Your task to perform on an android device: Toggle the flashlight Image 0: 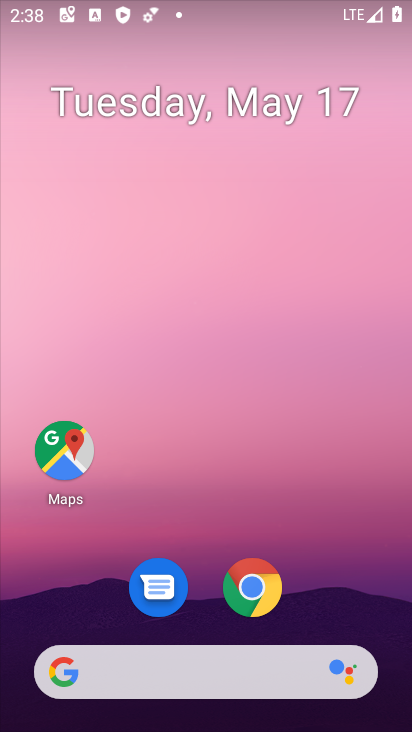
Step 0: click (407, 458)
Your task to perform on an android device: Toggle the flashlight Image 1: 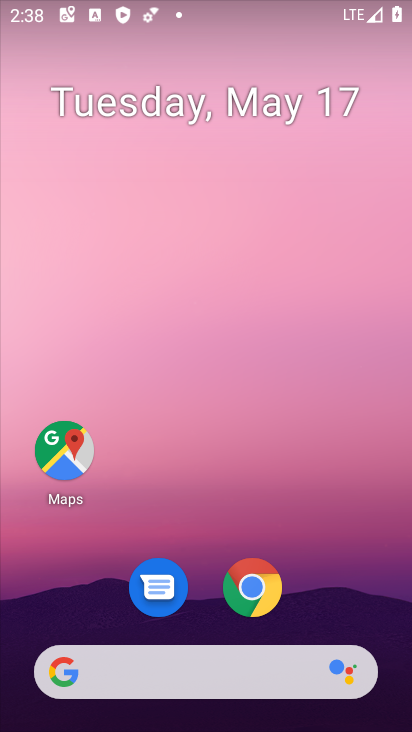
Step 1: drag from (192, 617) to (215, 120)
Your task to perform on an android device: Toggle the flashlight Image 2: 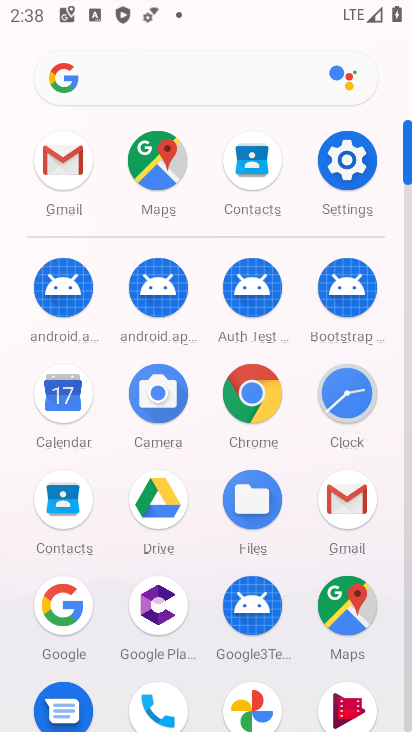
Step 2: click (341, 150)
Your task to perform on an android device: Toggle the flashlight Image 3: 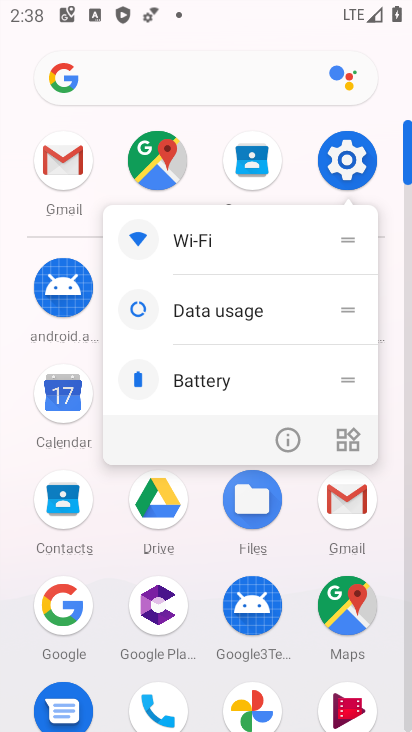
Step 3: click (284, 437)
Your task to perform on an android device: Toggle the flashlight Image 4: 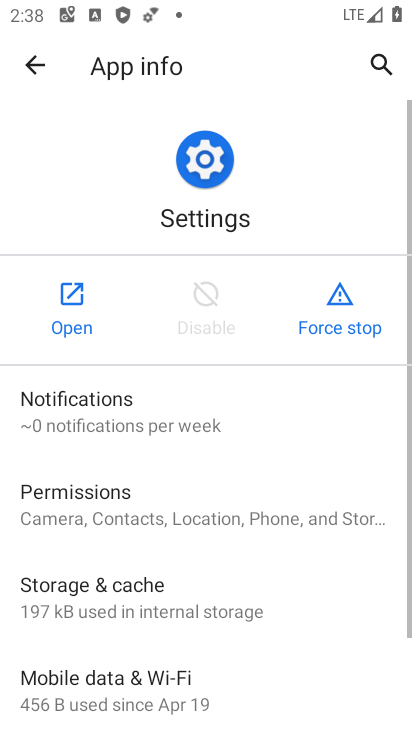
Step 4: click (79, 301)
Your task to perform on an android device: Toggle the flashlight Image 5: 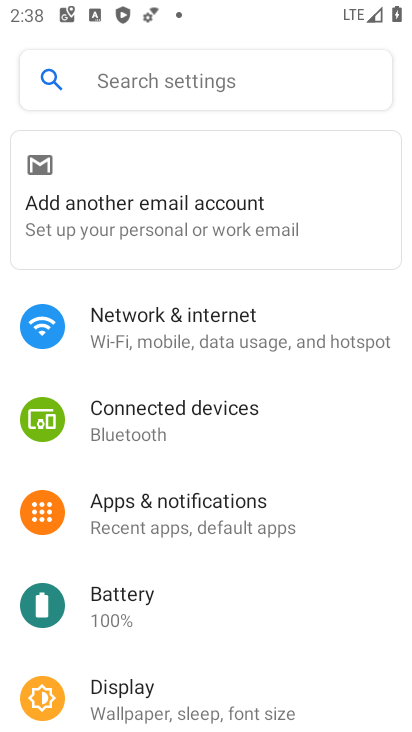
Step 5: click (191, 79)
Your task to perform on an android device: Toggle the flashlight Image 6: 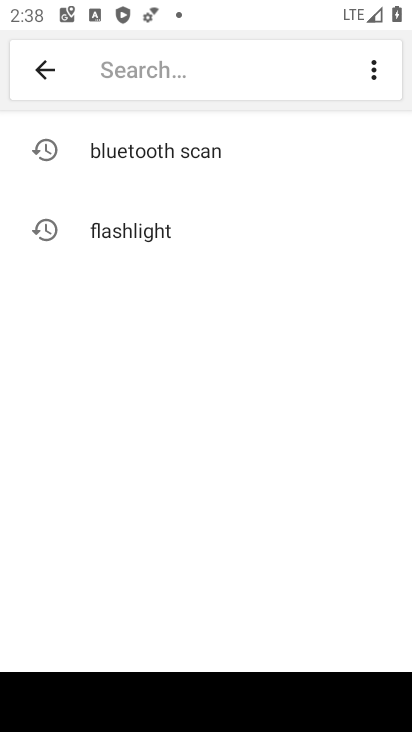
Step 6: type "flashlight"
Your task to perform on an android device: Toggle the flashlight Image 7: 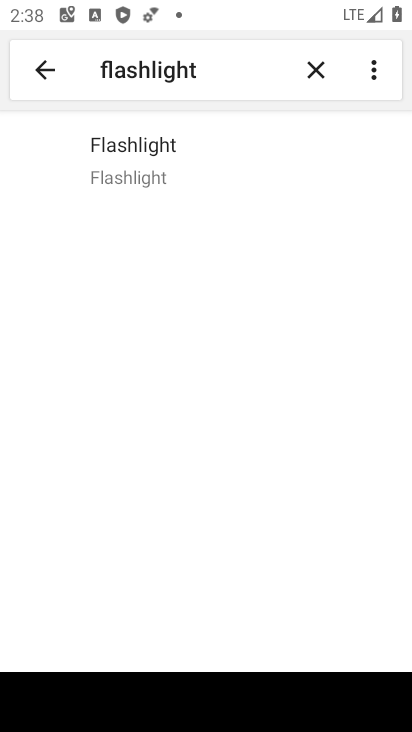
Step 7: click (185, 249)
Your task to perform on an android device: Toggle the flashlight Image 8: 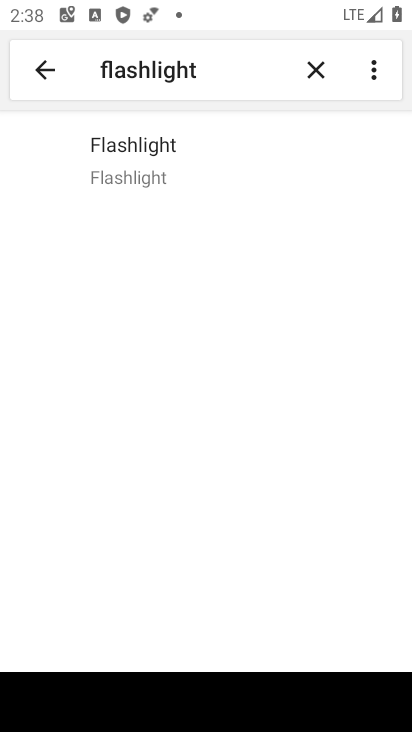
Step 8: click (158, 145)
Your task to perform on an android device: Toggle the flashlight Image 9: 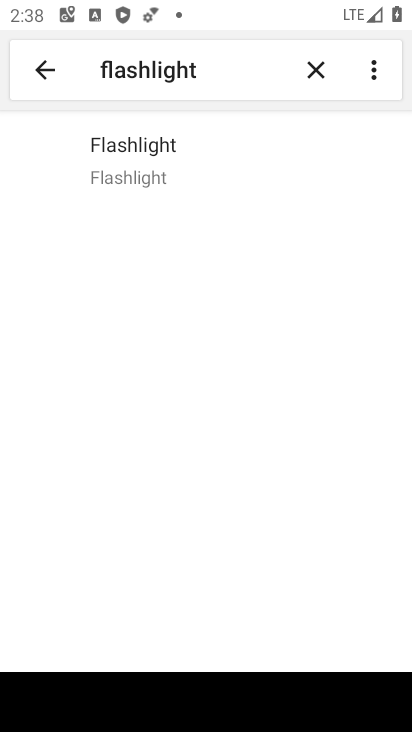
Step 9: task complete